Your task to perform on an android device: check google app version Image 0: 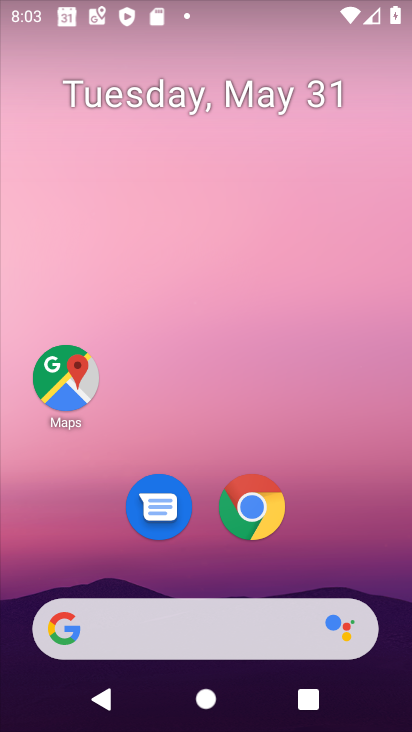
Step 0: drag from (330, 483) to (335, 131)
Your task to perform on an android device: check google app version Image 1: 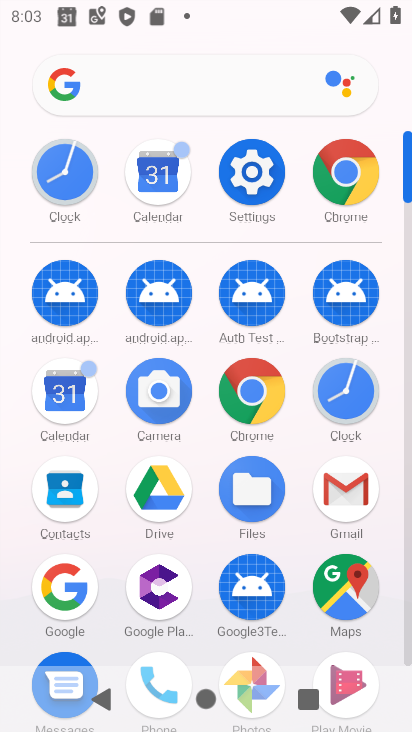
Step 1: click (51, 588)
Your task to perform on an android device: check google app version Image 2: 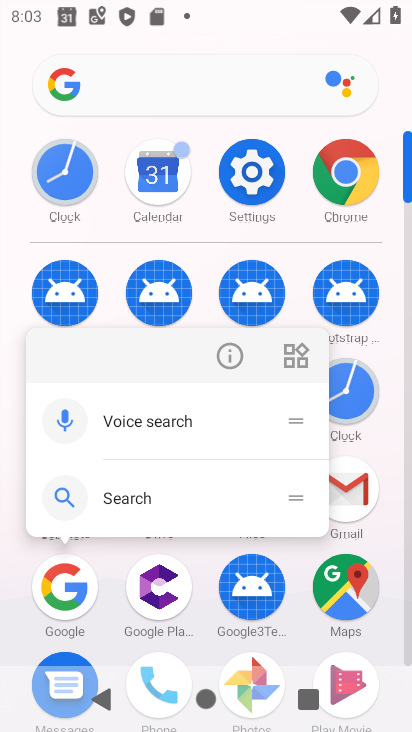
Step 2: click (244, 358)
Your task to perform on an android device: check google app version Image 3: 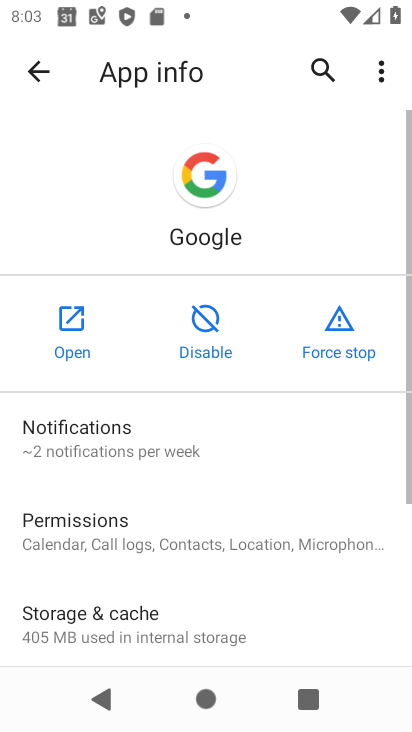
Step 3: drag from (301, 636) to (411, 122)
Your task to perform on an android device: check google app version Image 4: 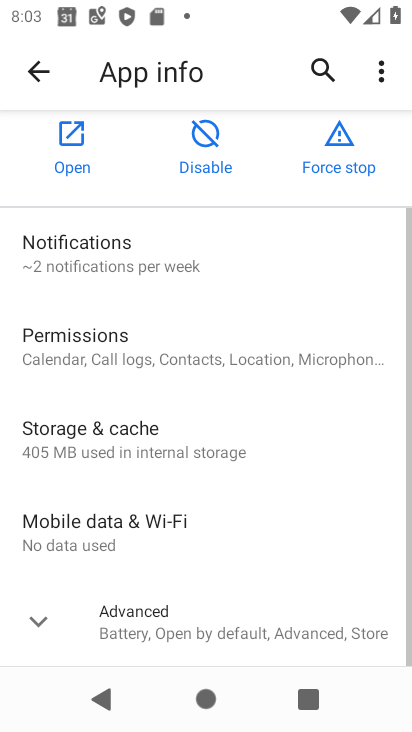
Step 4: click (158, 601)
Your task to perform on an android device: check google app version Image 5: 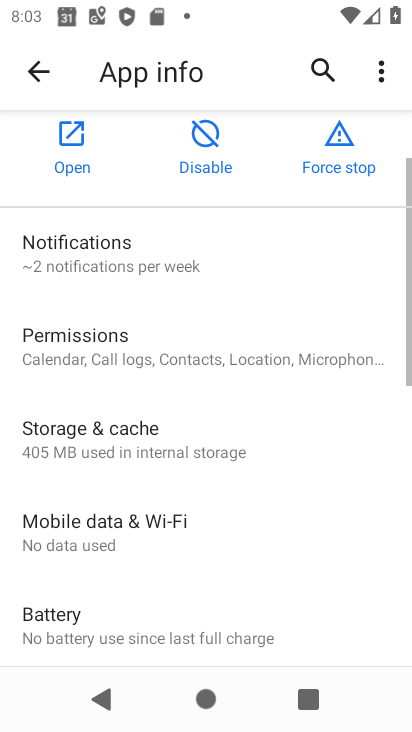
Step 5: task complete